Your task to perform on an android device: Go to wifi settings Image 0: 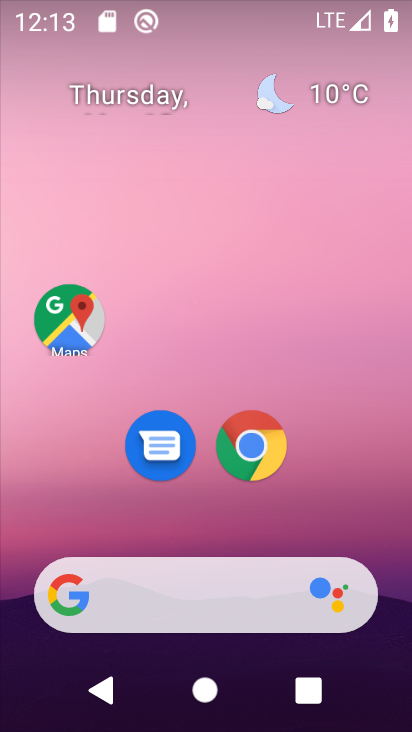
Step 0: drag from (100, 9) to (72, 466)
Your task to perform on an android device: Go to wifi settings Image 1: 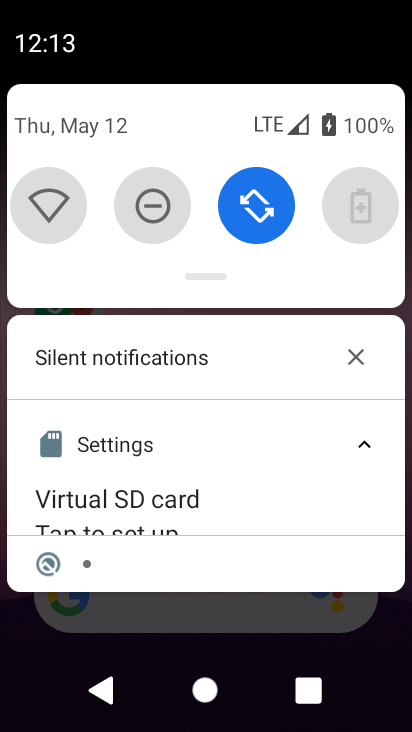
Step 1: click (56, 204)
Your task to perform on an android device: Go to wifi settings Image 2: 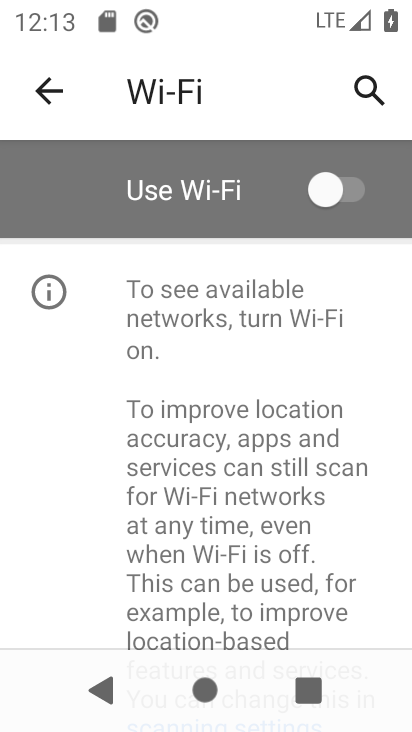
Step 2: task complete